Your task to perform on an android device: Is it going to rain this weekend? Image 0: 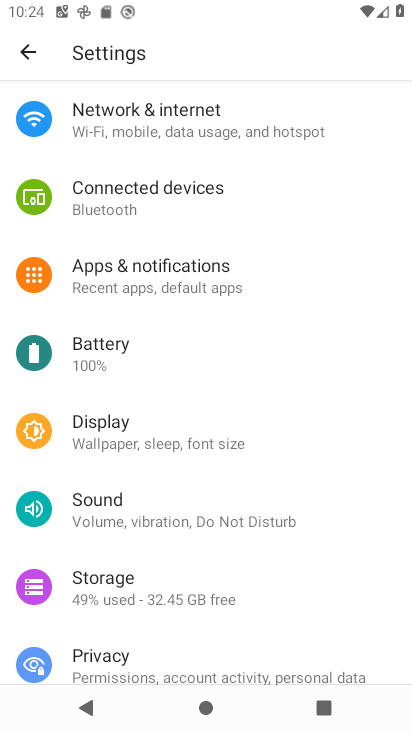
Step 0: press home button
Your task to perform on an android device: Is it going to rain this weekend? Image 1: 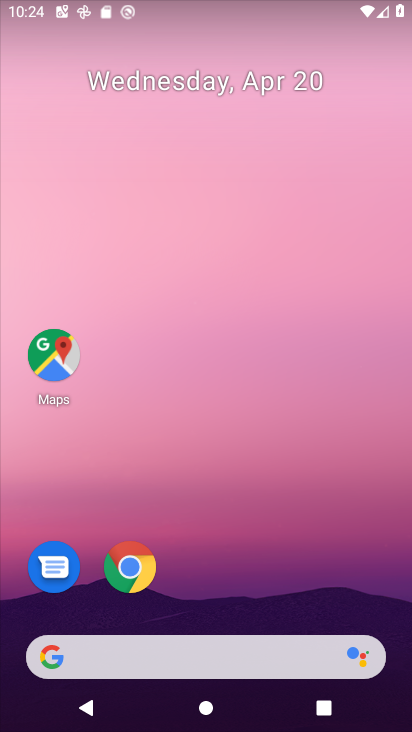
Step 1: click (228, 644)
Your task to perform on an android device: Is it going to rain this weekend? Image 2: 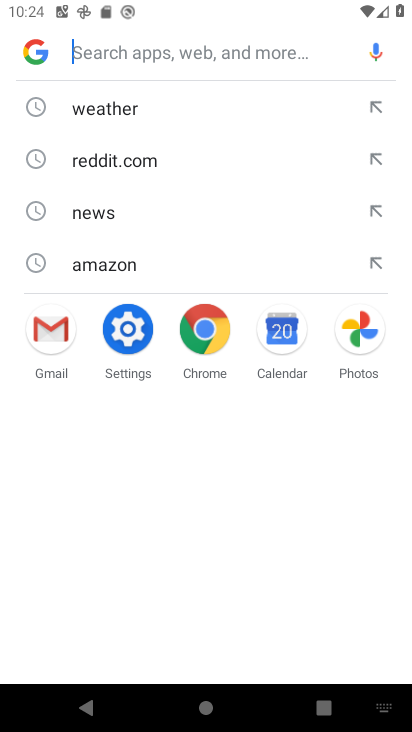
Step 2: click (127, 107)
Your task to perform on an android device: Is it going to rain this weekend? Image 3: 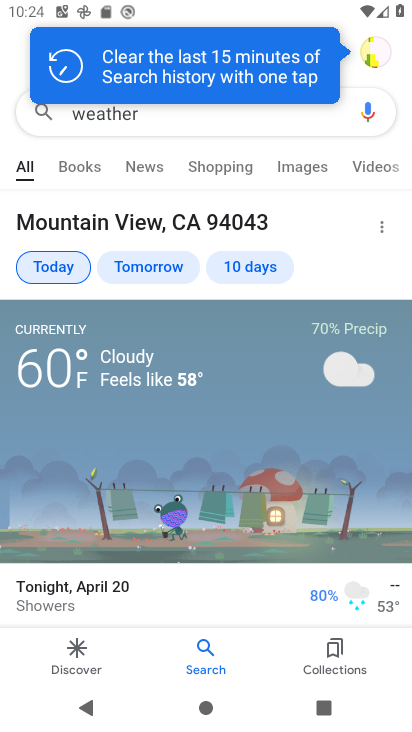
Step 3: click (240, 271)
Your task to perform on an android device: Is it going to rain this weekend? Image 4: 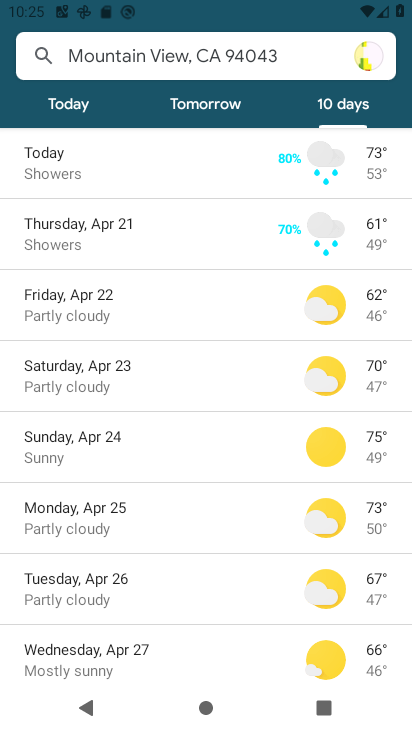
Step 4: task complete